Your task to perform on an android device: toggle airplane mode Image 0: 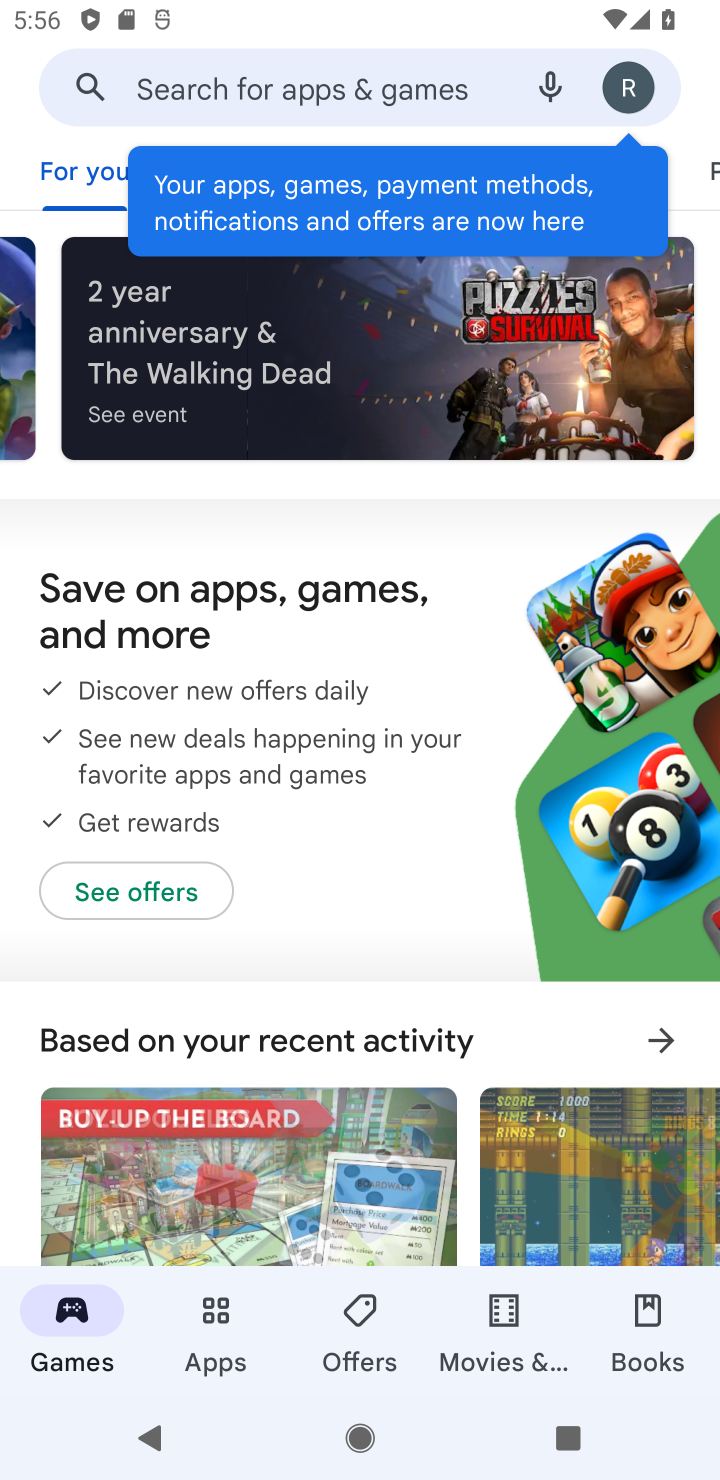
Step 0: drag from (401, 18) to (379, 926)
Your task to perform on an android device: toggle airplane mode Image 1: 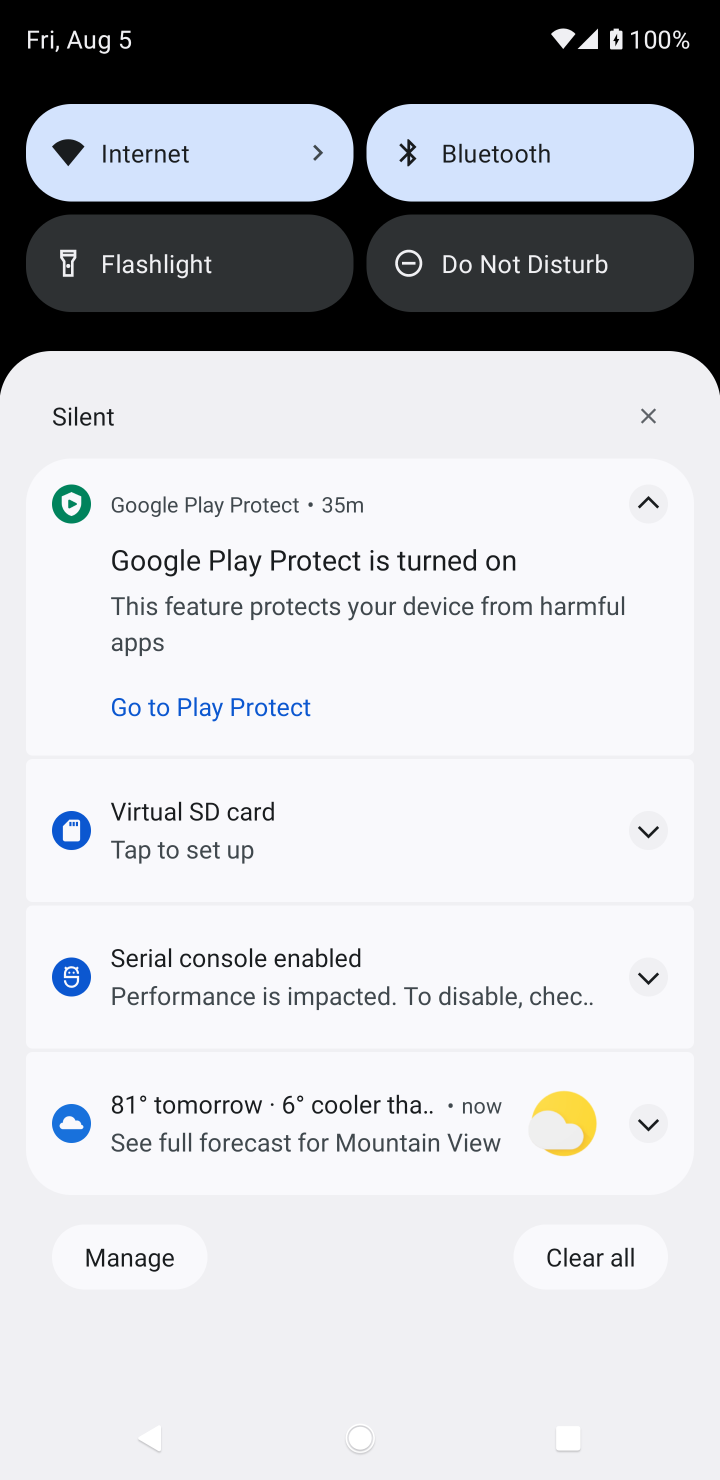
Step 1: drag from (313, 338) to (300, 1144)
Your task to perform on an android device: toggle airplane mode Image 2: 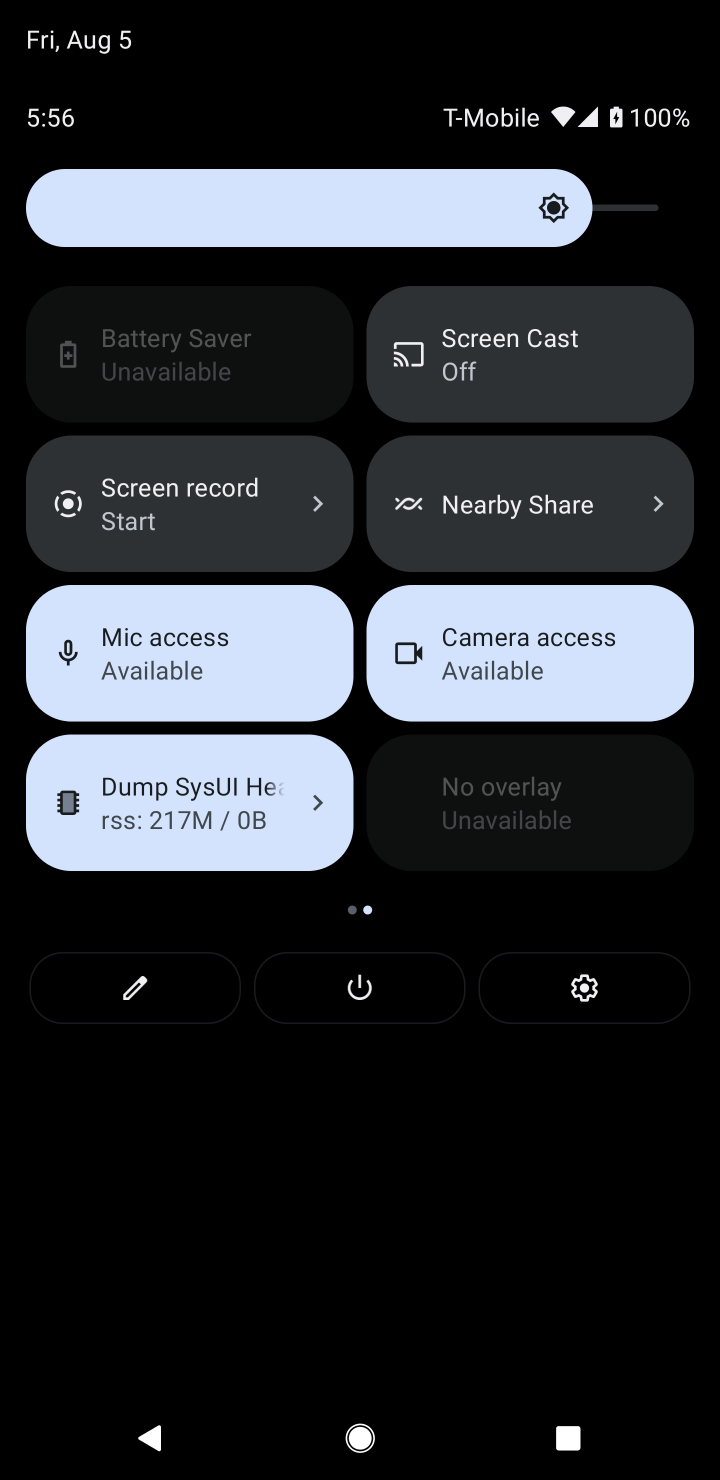
Step 2: click (563, 1009)
Your task to perform on an android device: toggle airplane mode Image 3: 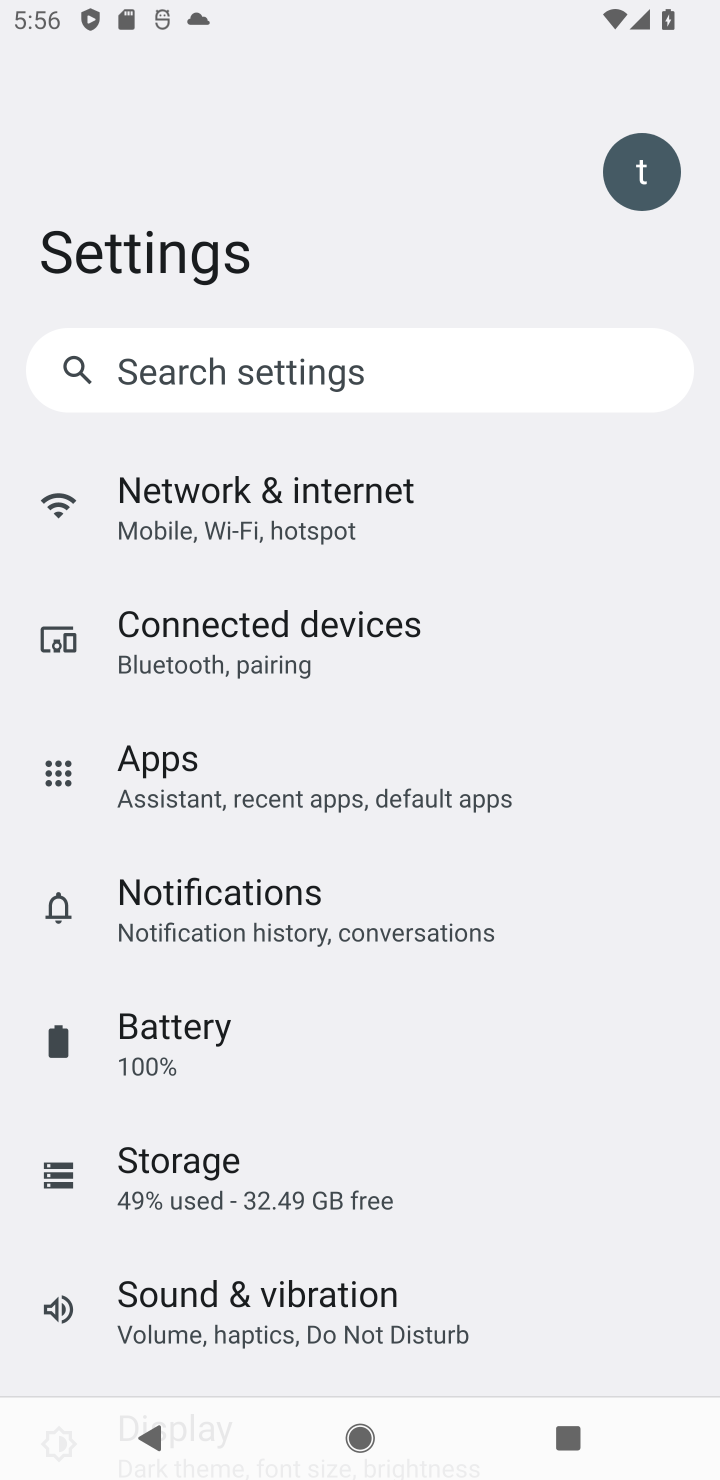
Step 3: click (219, 523)
Your task to perform on an android device: toggle airplane mode Image 4: 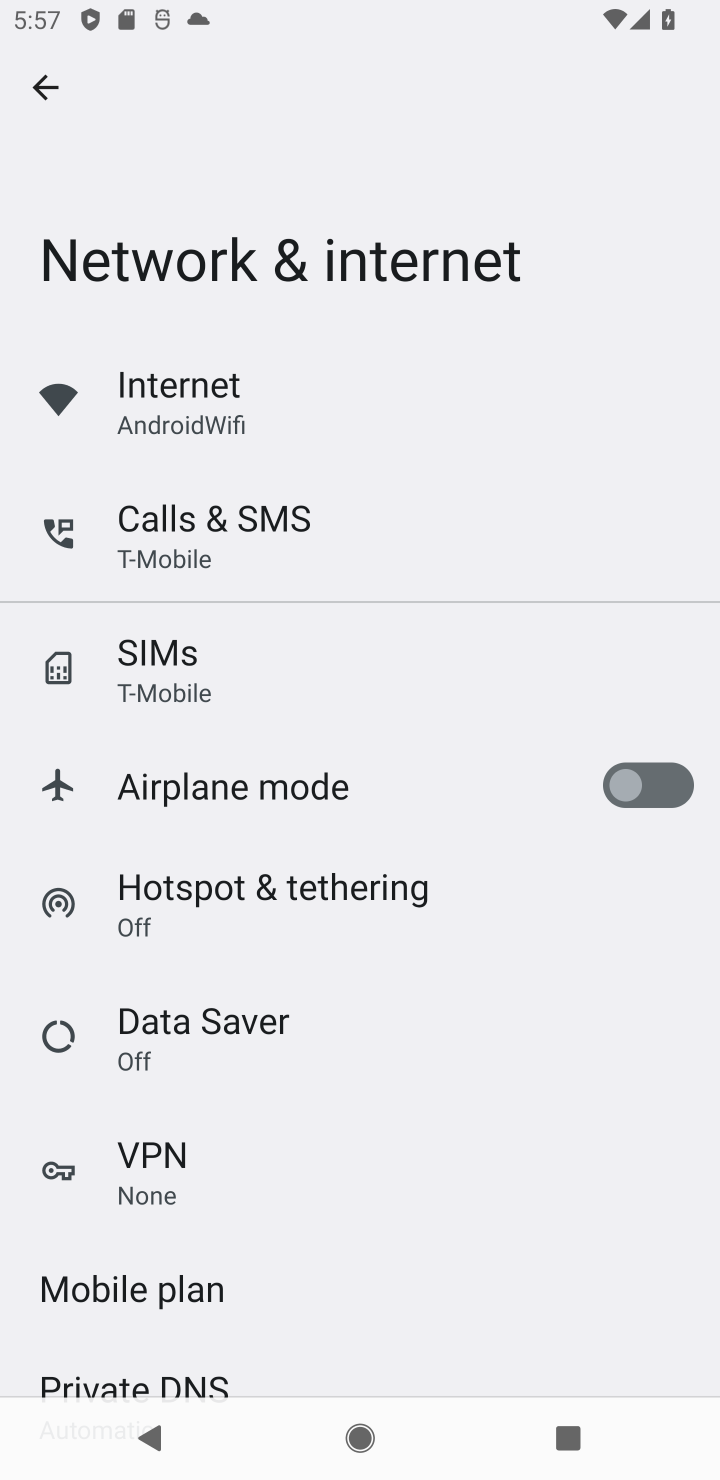
Step 4: click (634, 782)
Your task to perform on an android device: toggle airplane mode Image 5: 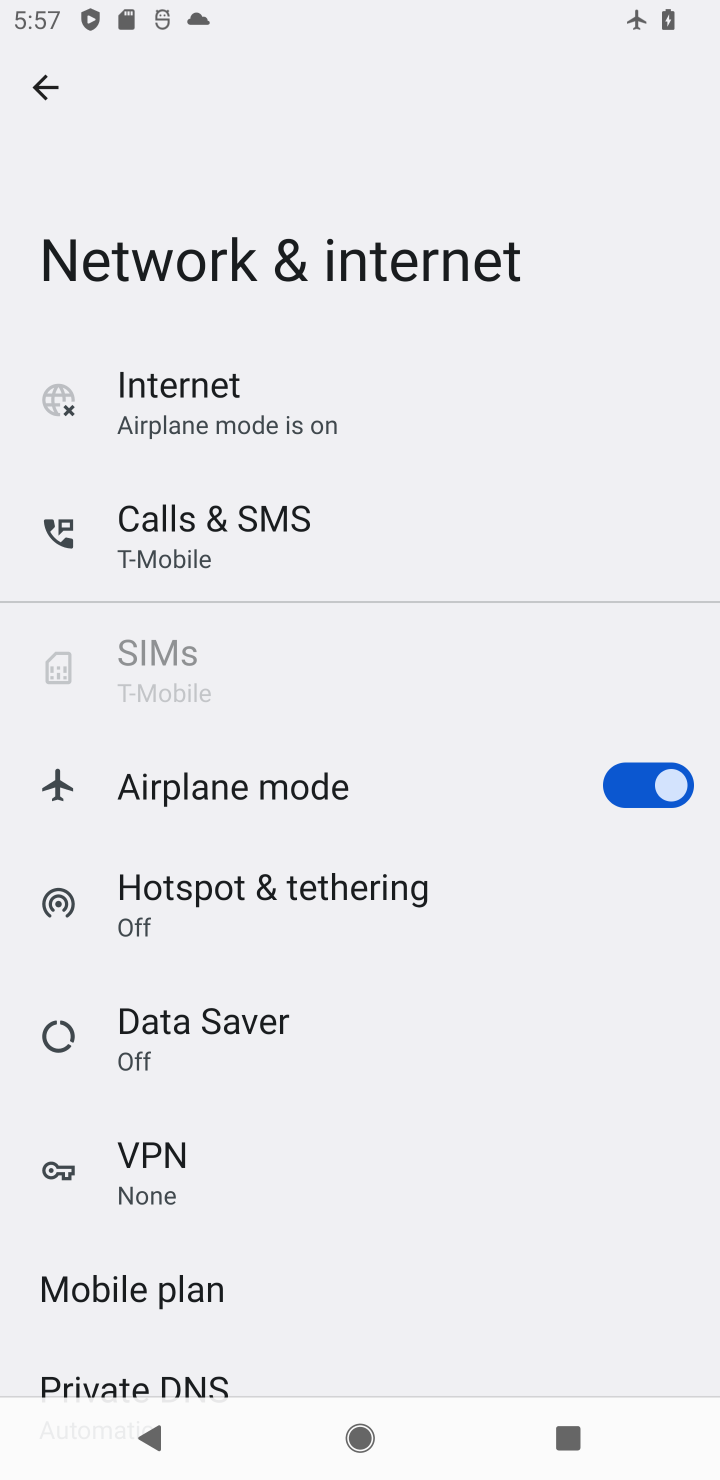
Step 5: task complete